Your task to perform on an android device: find photos in the google photos app Image 0: 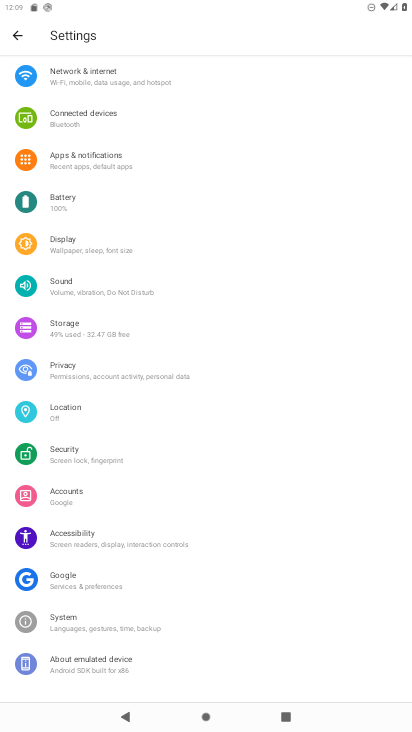
Step 0: press home button
Your task to perform on an android device: find photos in the google photos app Image 1: 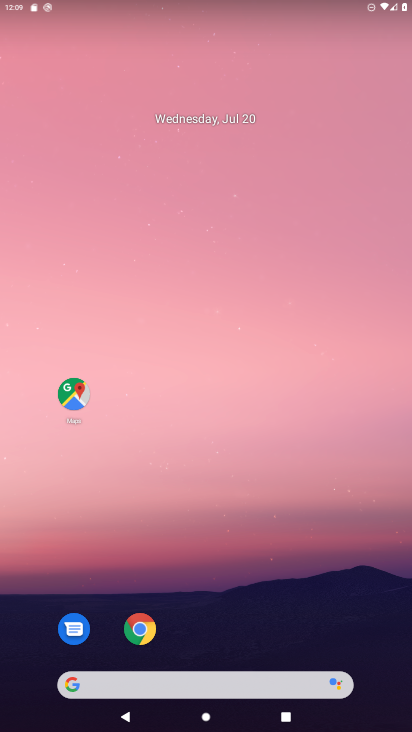
Step 1: drag from (186, 520) to (191, 245)
Your task to perform on an android device: find photos in the google photos app Image 2: 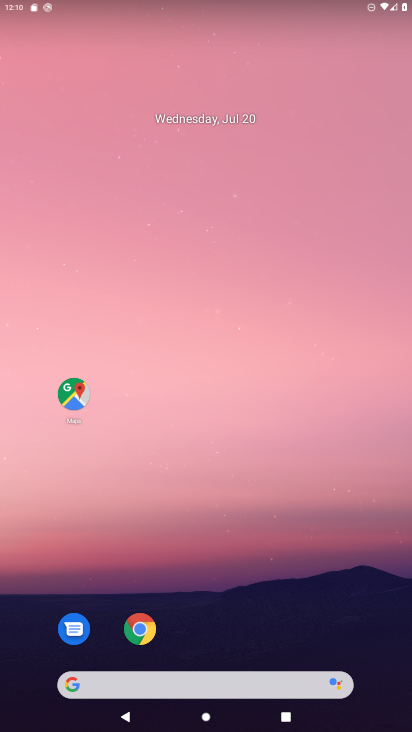
Step 2: drag from (182, 581) to (235, 182)
Your task to perform on an android device: find photos in the google photos app Image 3: 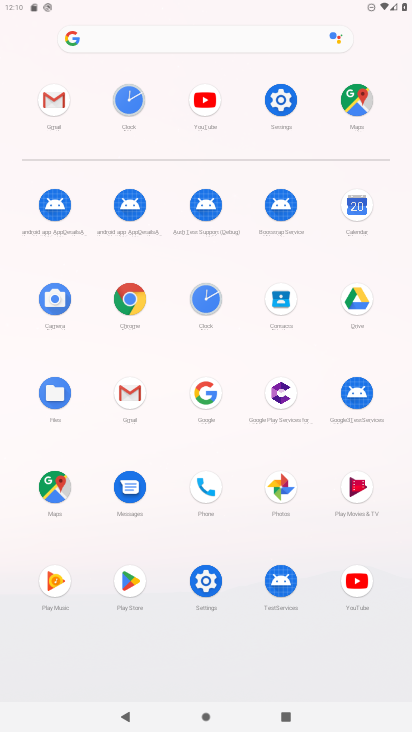
Step 3: click (279, 491)
Your task to perform on an android device: find photos in the google photos app Image 4: 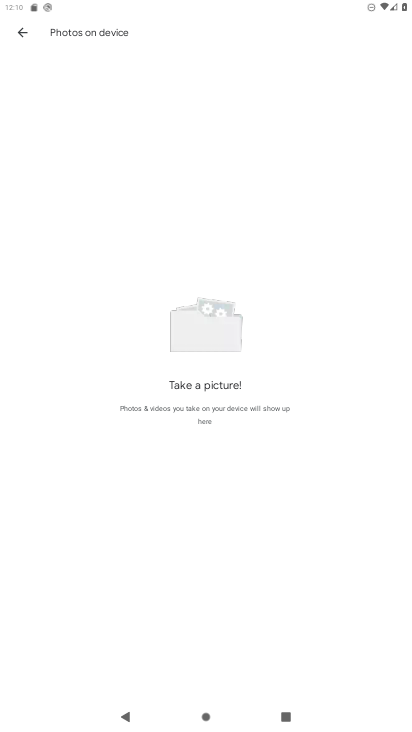
Step 4: task complete